Your task to perform on an android device: uninstall "Spotify" Image 0: 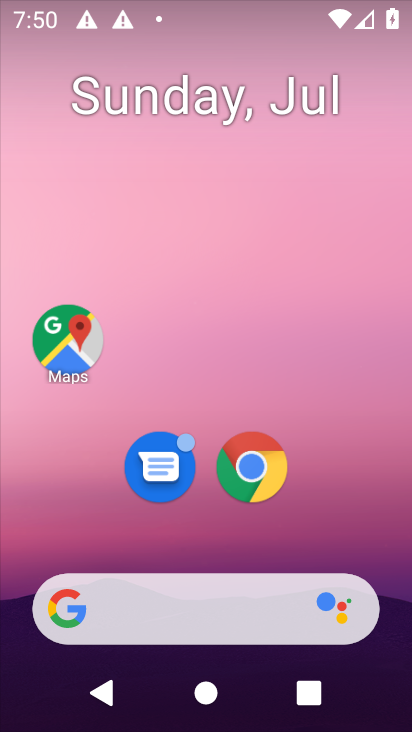
Step 0: drag from (210, 544) to (277, 235)
Your task to perform on an android device: uninstall "Spotify" Image 1: 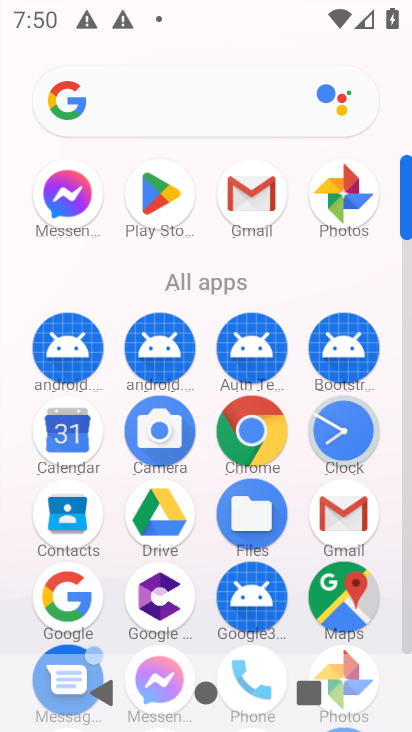
Step 1: drag from (203, 634) to (200, 434)
Your task to perform on an android device: uninstall "Spotify" Image 2: 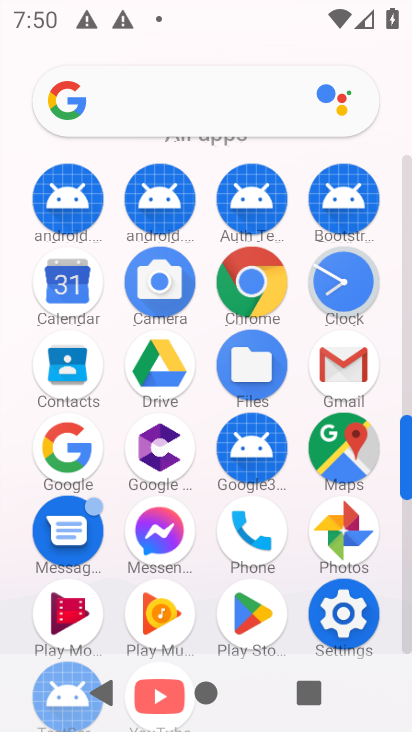
Step 2: click (252, 616)
Your task to perform on an android device: uninstall "Spotify" Image 3: 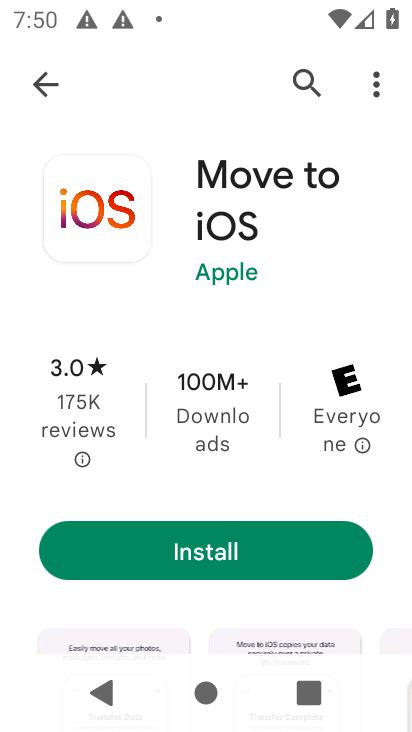
Step 3: click (317, 76)
Your task to perform on an android device: uninstall "Spotify" Image 4: 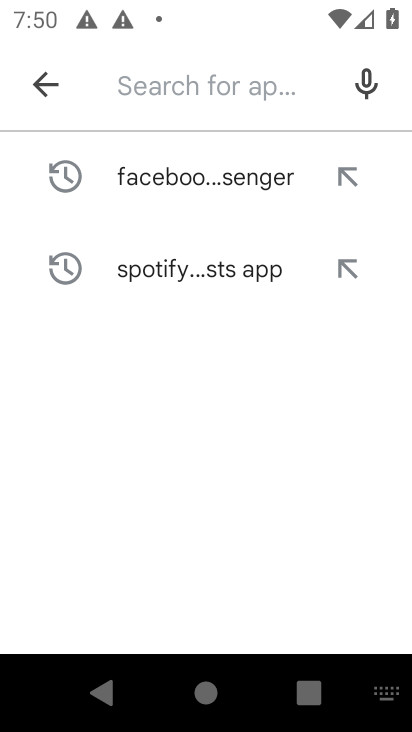
Step 4: type "Spotify"
Your task to perform on an android device: uninstall "Spotify" Image 5: 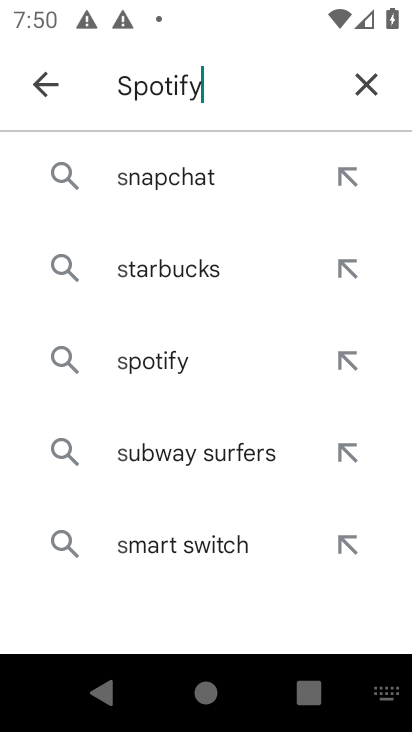
Step 5: type ""
Your task to perform on an android device: uninstall "Spotify" Image 6: 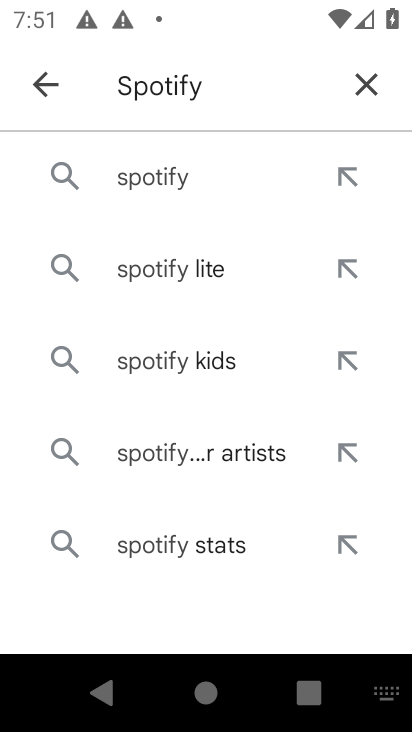
Step 6: click (164, 187)
Your task to perform on an android device: uninstall "Spotify" Image 7: 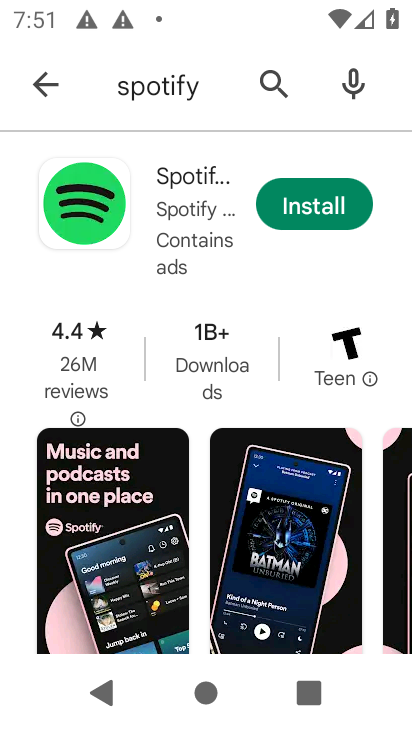
Step 7: click (156, 214)
Your task to perform on an android device: uninstall "Spotify" Image 8: 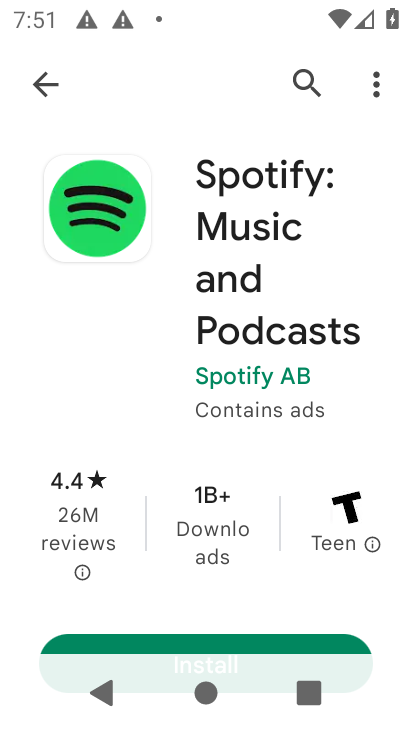
Step 8: task complete